Your task to perform on an android device: turn on wifi Image 0: 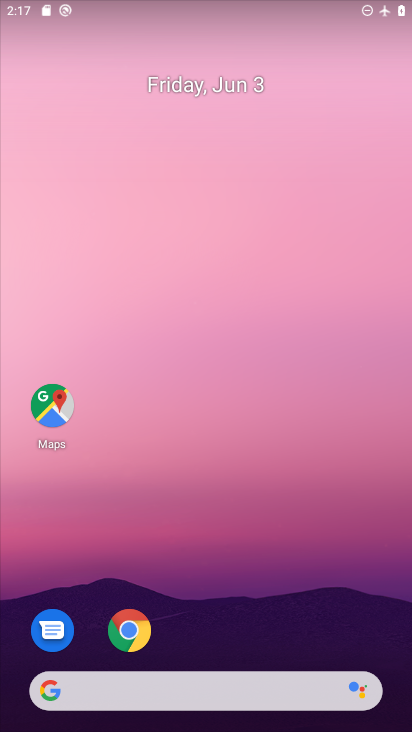
Step 0: drag from (243, 729) to (243, 45)
Your task to perform on an android device: turn on wifi Image 1: 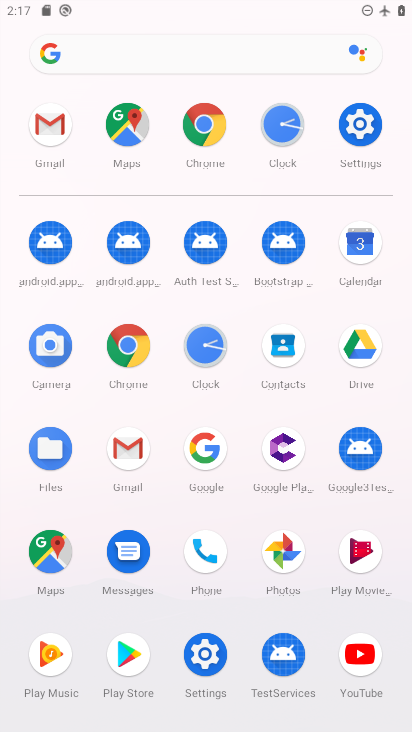
Step 1: click (366, 121)
Your task to perform on an android device: turn on wifi Image 2: 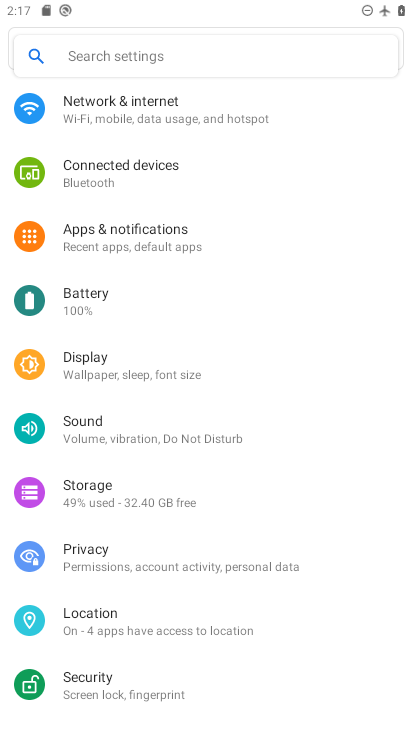
Step 2: click (127, 118)
Your task to perform on an android device: turn on wifi Image 3: 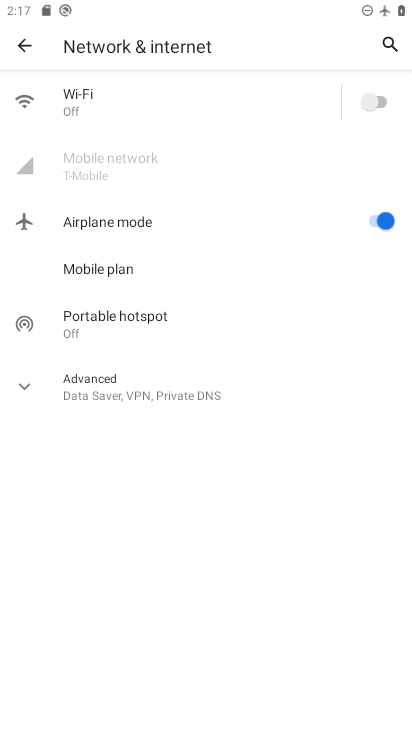
Step 3: click (382, 102)
Your task to perform on an android device: turn on wifi Image 4: 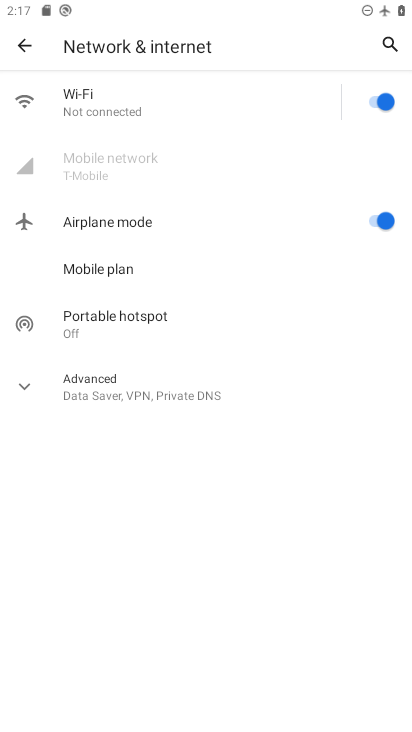
Step 4: task complete